Your task to perform on an android device: What's the weather? Image 0: 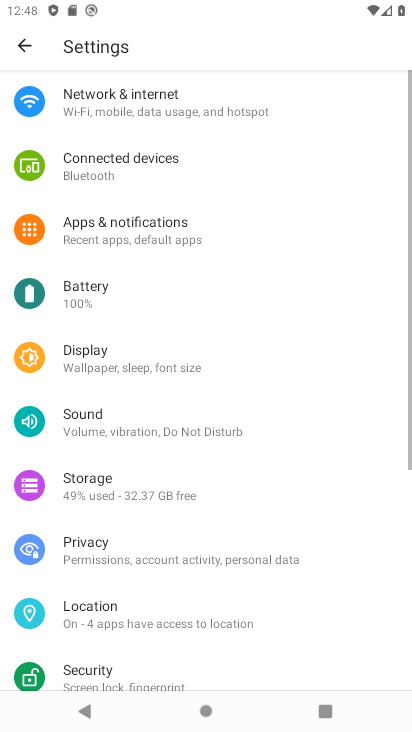
Step 0: press home button
Your task to perform on an android device: What's the weather? Image 1: 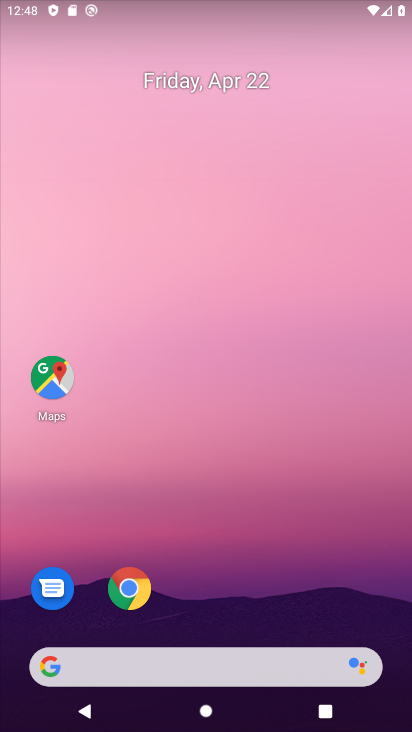
Step 1: drag from (248, 697) to (202, 126)
Your task to perform on an android device: What's the weather? Image 2: 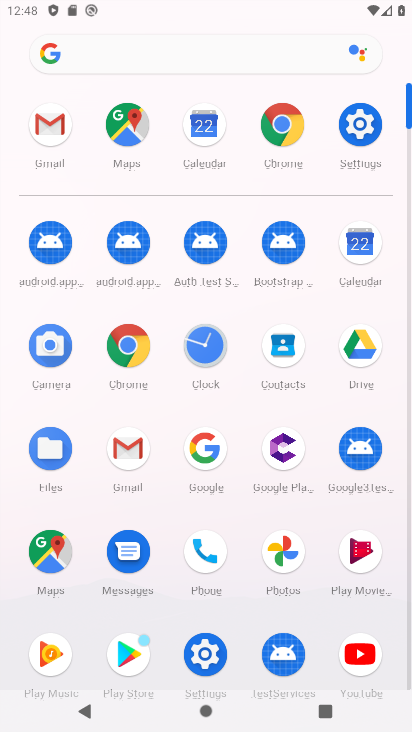
Step 2: click (120, 62)
Your task to perform on an android device: What's the weather? Image 3: 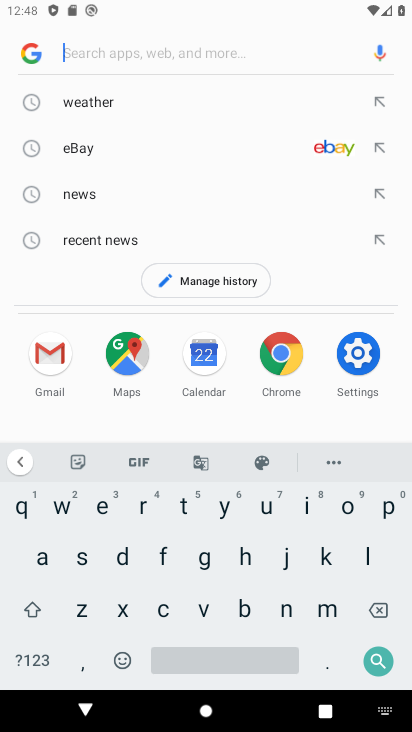
Step 3: click (90, 101)
Your task to perform on an android device: What's the weather? Image 4: 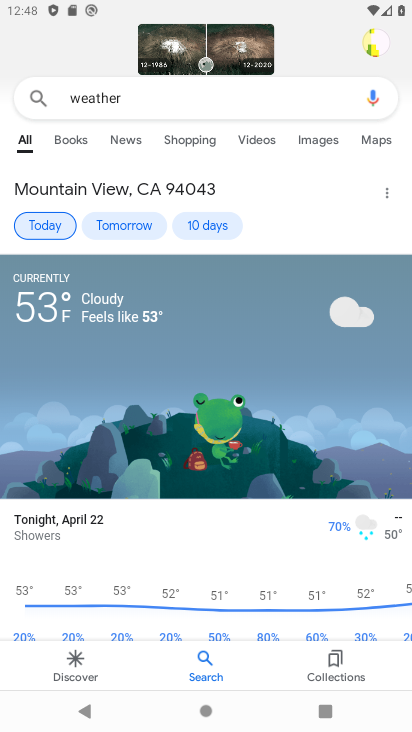
Step 4: click (53, 222)
Your task to perform on an android device: What's the weather? Image 5: 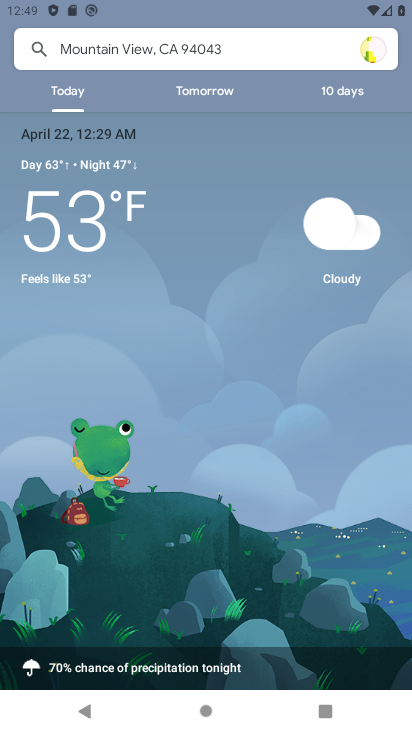
Step 5: task complete